Your task to perform on an android device: toggle wifi Image 0: 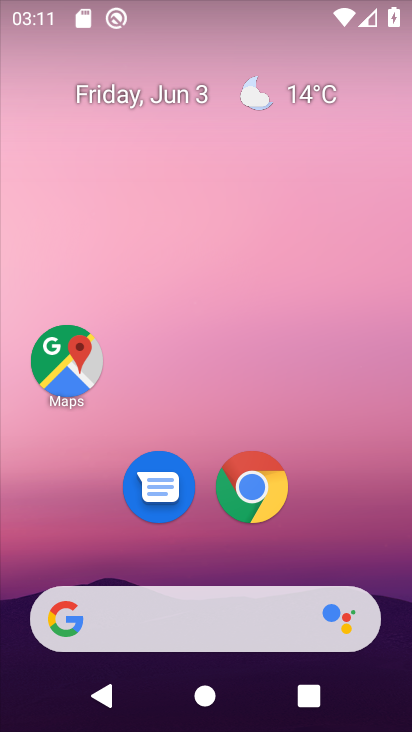
Step 0: drag from (354, 522) to (271, 2)
Your task to perform on an android device: toggle wifi Image 1: 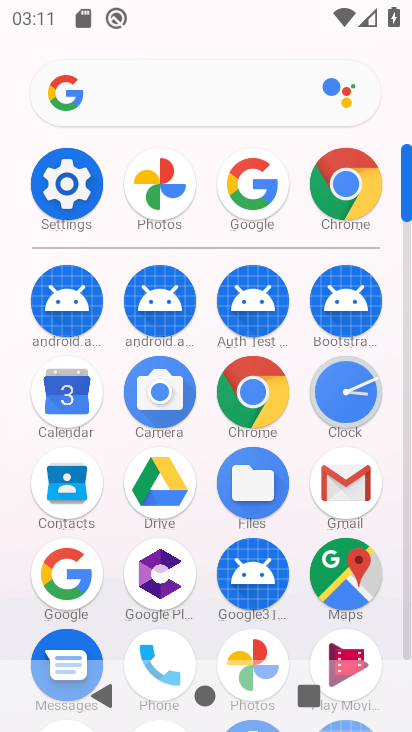
Step 1: click (62, 181)
Your task to perform on an android device: toggle wifi Image 2: 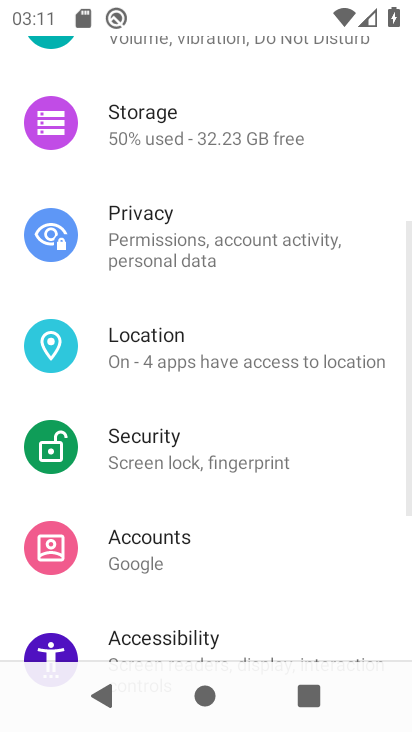
Step 2: drag from (231, 123) to (256, 679)
Your task to perform on an android device: toggle wifi Image 3: 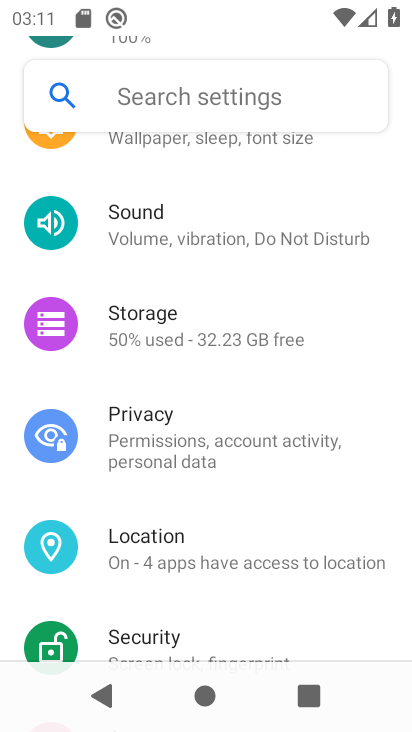
Step 3: drag from (290, 121) to (306, 628)
Your task to perform on an android device: toggle wifi Image 4: 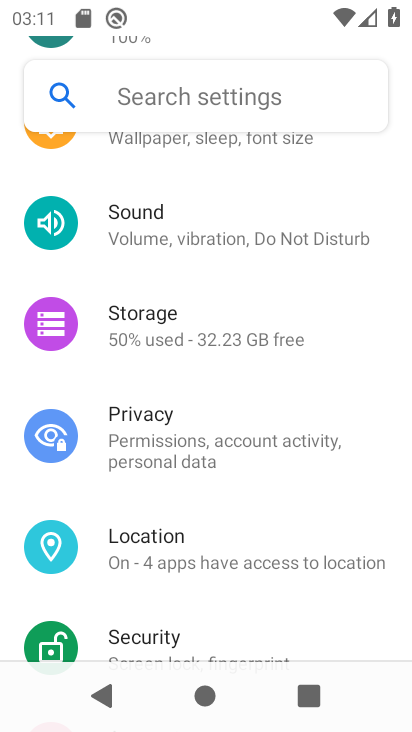
Step 4: drag from (279, 145) to (255, 649)
Your task to perform on an android device: toggle wifi Image 5: 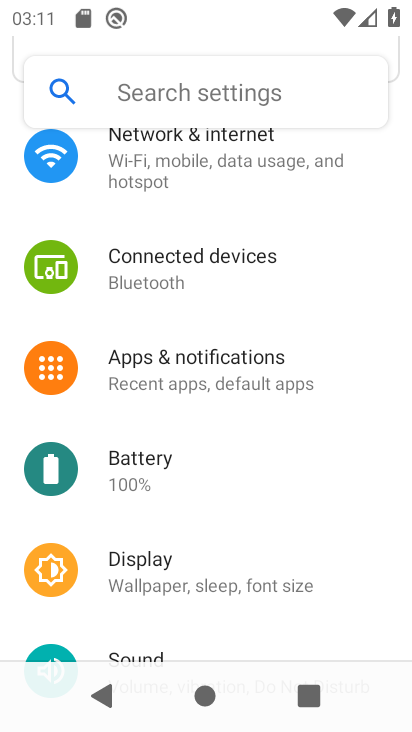
Step 5: click (225, 172)
Your task to perform on an android device: toggle wifi Image 6: 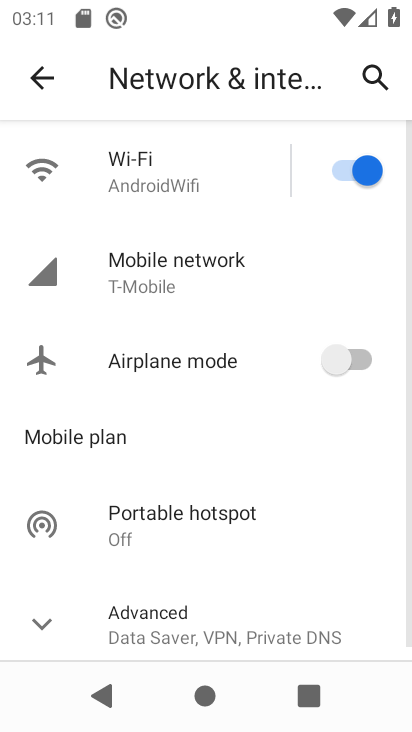
Step 6: click (353, 160)
Your task to perform on an android device: toggle wifi Image 7: 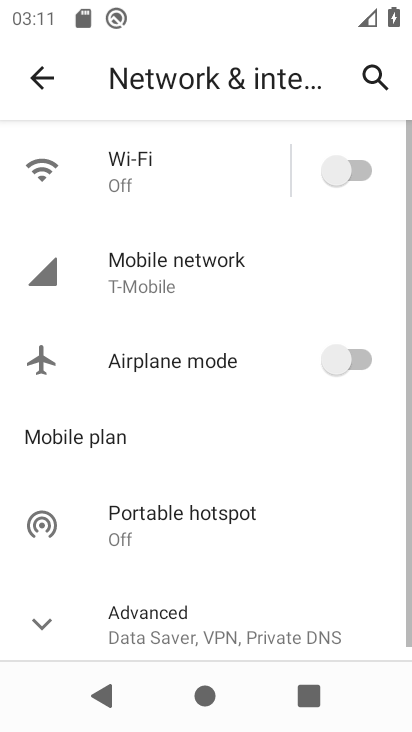
Step 7: task complete